Your task to perform on an android device: Open calendar and show me the second week of next month Image 0: 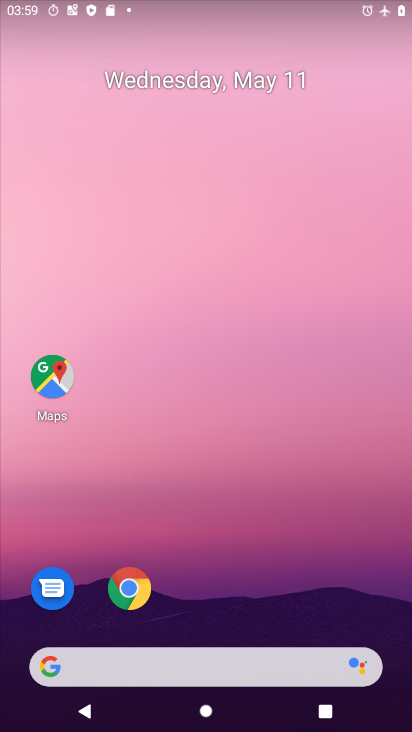
Step 0: drag from (233, 608) to (236, 204)
Your task to perform on an android device: Open calendar and show me the second week of next month Image 1: 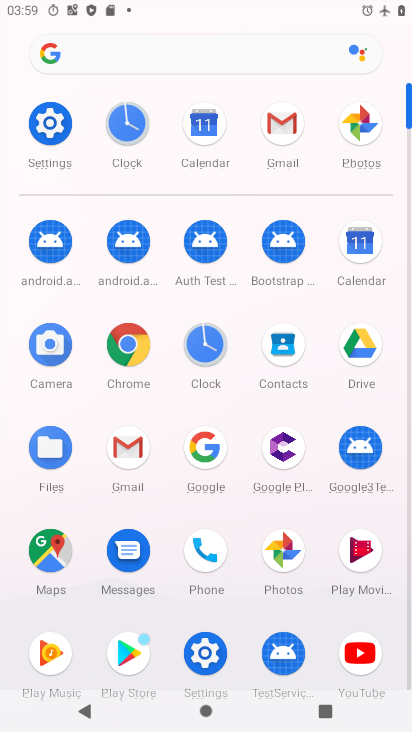
Step 1: click (191, 143)
Your task to perform on an android device: Open calendar and show me the second week of next month Image 2: 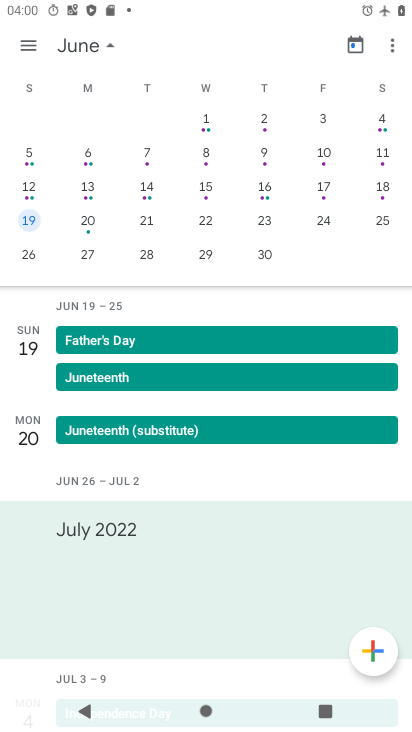
Step 2: drag from (100, 164) to (391, 158)
Your task to perform on an android device: Open calendar and show me the second week of next month Image 3: 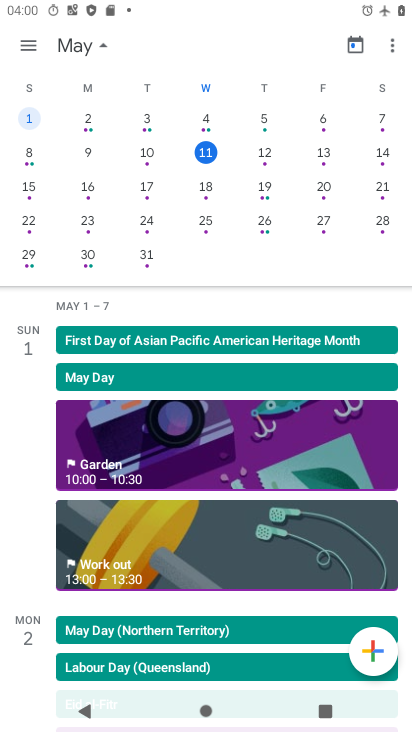
Step 3: drag from (349, 153) to (51, 163)
Your task to perform on an android device: Open calendar and show me the second week of next month Image 4: 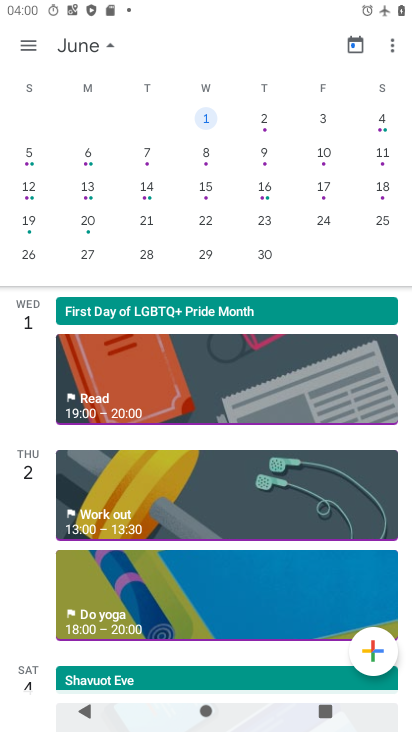
Step 4: click (37, 158)
Your task to perform on an android device: Open calendar and show me the second week of next month Image 5: 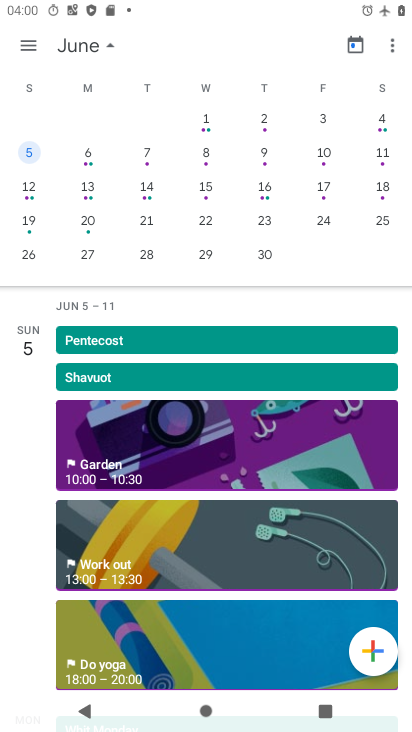
Step 5: click (86, 157)
Your task to perform on an android device: Open calendar and show me the second week of next month Image 6: 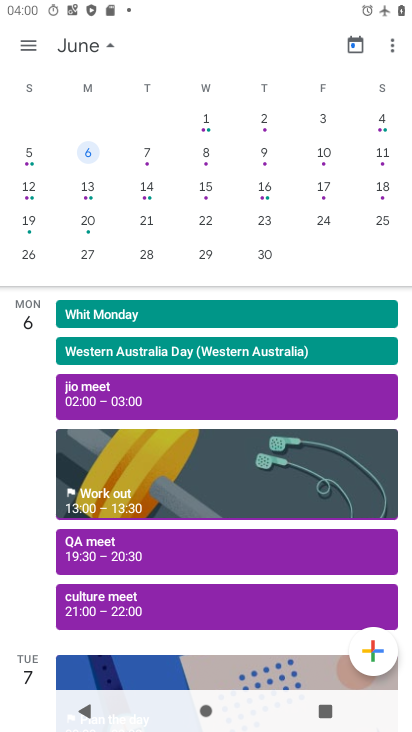
Step 6: task complete